Your task to perform on an android device: Set the phone to "Do not disturb". Image 0: 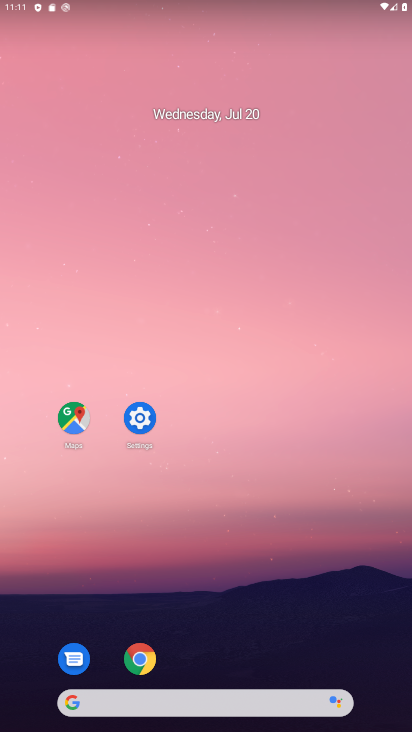
Step 0: drag from (383, 691) to (344, 199)
Your task to perform on an android device: Set the phone to "Do not disturb". Image 1: 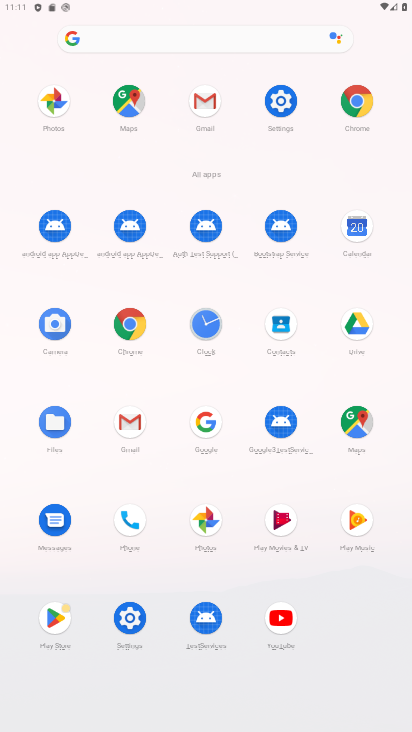
Step 1: click (280, 101)
Your task to perform on an android device: Set the phone to "Do not disturb". Image 2: 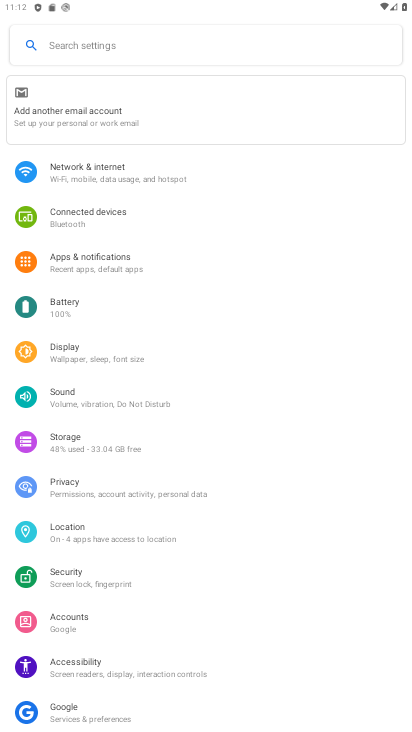
Step 2: click (60, 390)
Your task to perform on an android device: Set the phone to "Do not disturb". Image 3: 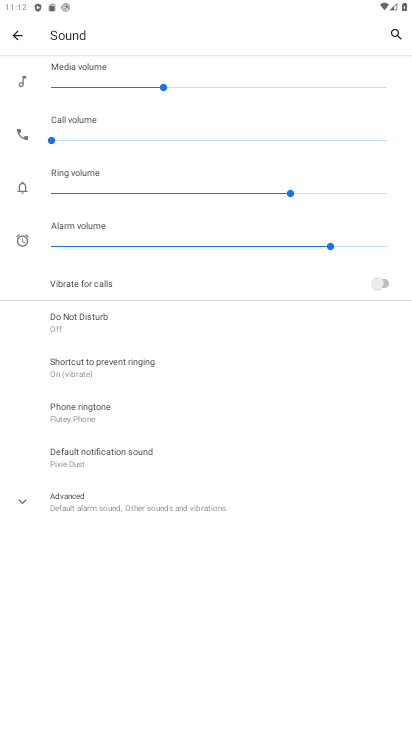
Step 3: click (72, 317)
Your task to perform on an android device: Set the phone to "Do not disturb". Image 4: 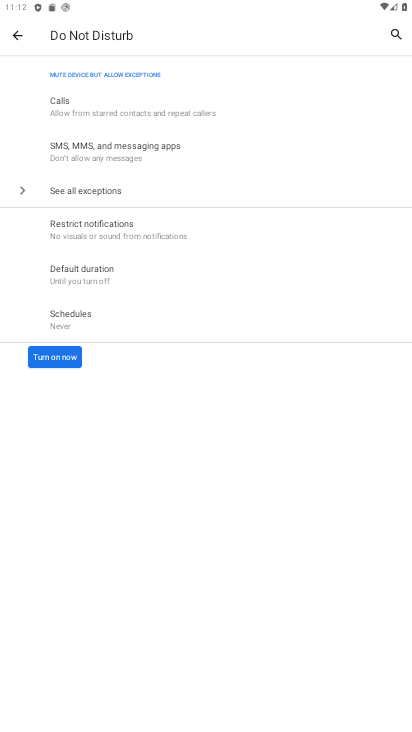
Step 4: click (63, 357)
Your task to perform on an android device: Set the phone to "Do not disturb". Image 5: 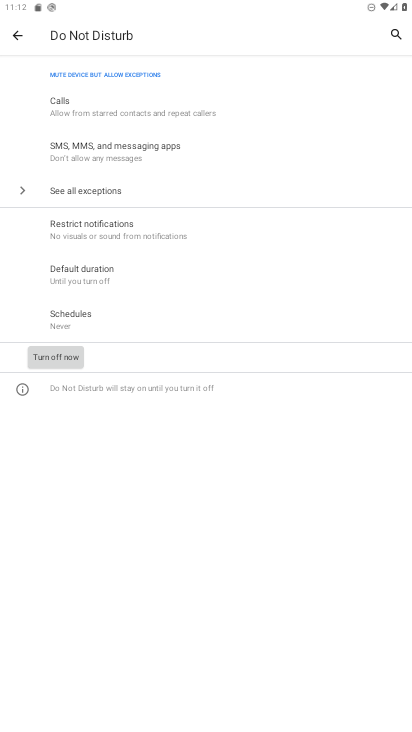
Step 5: task complete